Your task to perform on an android device: delete location history Image 0: 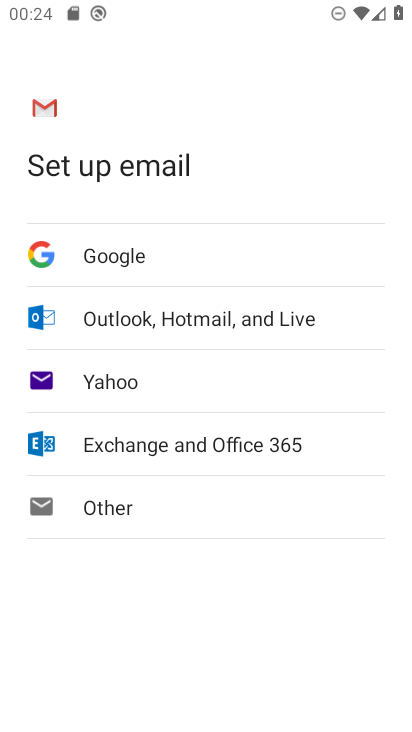
Step 0: press home button
Your task to perform on an android device: delete location history Image 1: 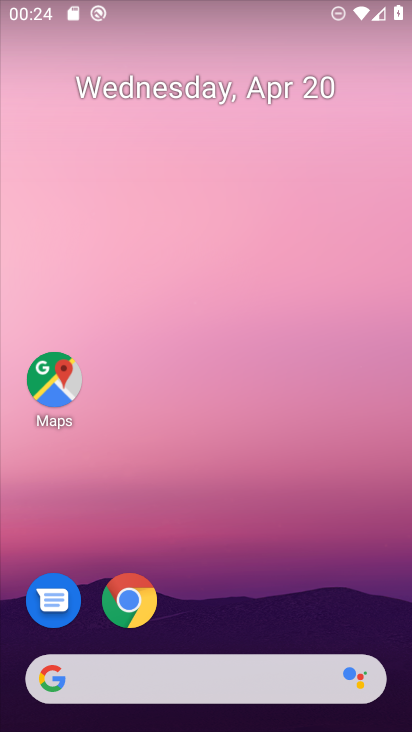
Step 1: drag from (349, 579) to (331, 201)
Your task to perform on an android device: delete location history Image 2: 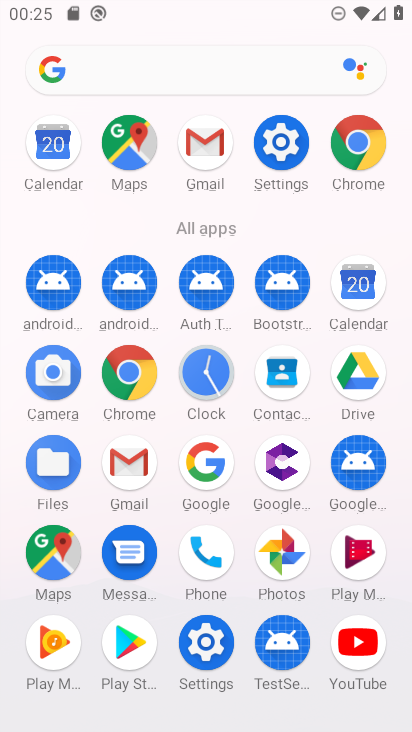
Step 2: click (278, 157)
Your task to perform on an android device: delete location history Image 3: 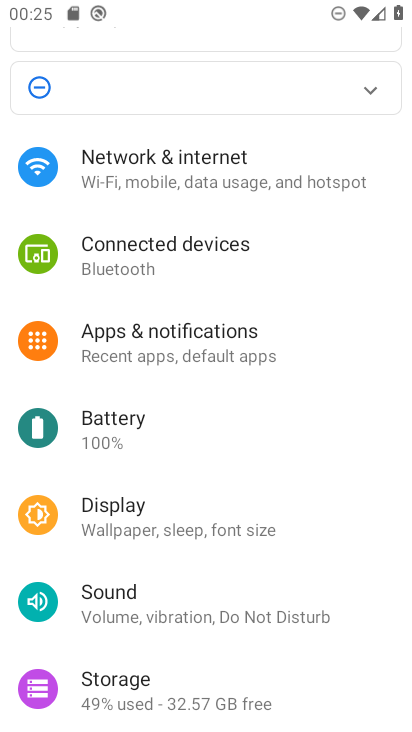
Step 3: drag from (302, 637) to (308, 286)
Your task to perform on an android device: delete location history Image 4: 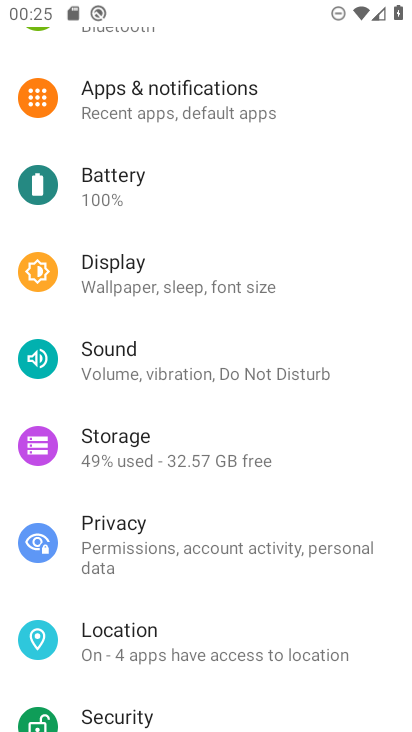
Step 4: click (242, 651)
Your task to perform on an android device: delete location history Image 5: 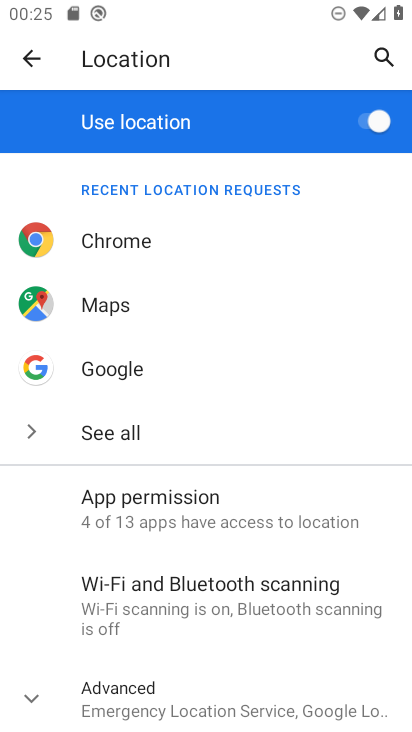
Step 5: drag from (376, 645) to (367, 335)
Your task to perform on an android device: delete location history Image 6: 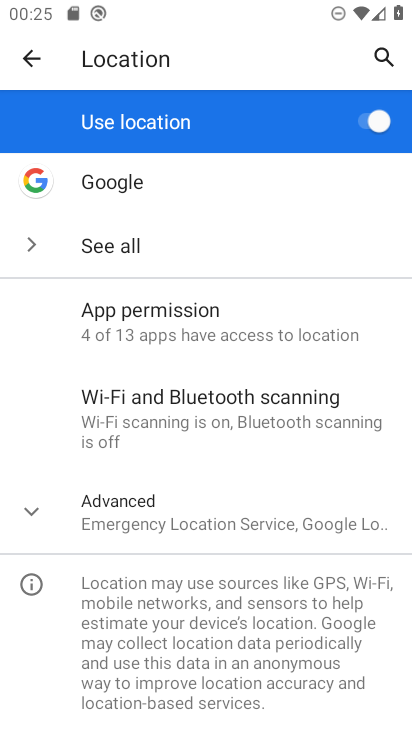
Step 6: click (226, 511)
Your task to perform on an android device: delete location history Image 7: 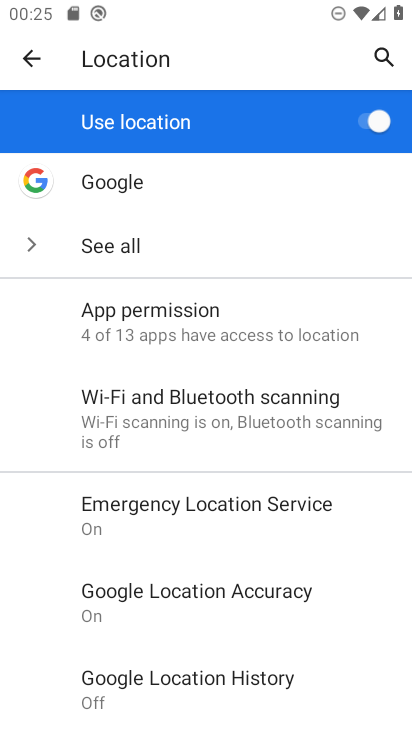
Step 7: click (272, 681)
Your task to perform on an android device: delete location history Image 8: 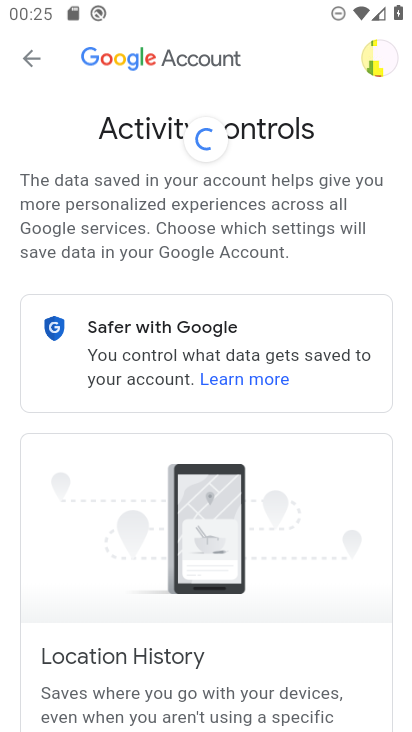
Step 8: drag from (324, 654) to (319, 371)
Your task to perform on an android device: delete location history Image 9: 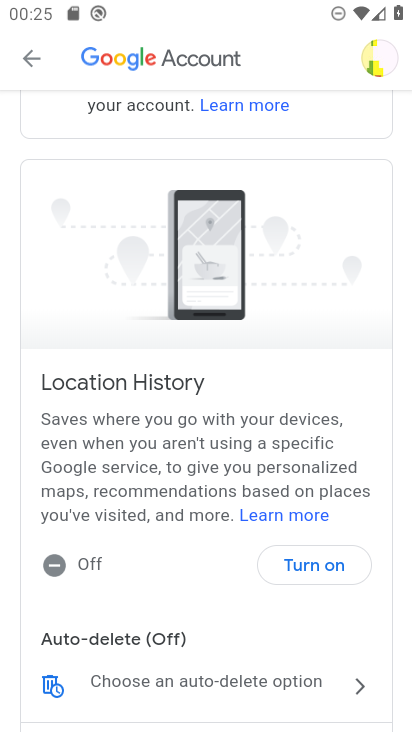
Step 9: drag from (236, 601) to (248, 402)
Your task to perform on an android device: delete location history Image 10: 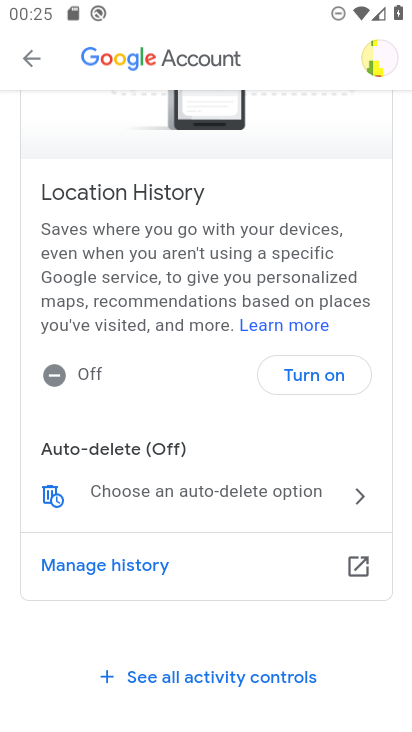
Step 10: click (138, 570)
Your task to perform on an android device: delete location history Image 11: 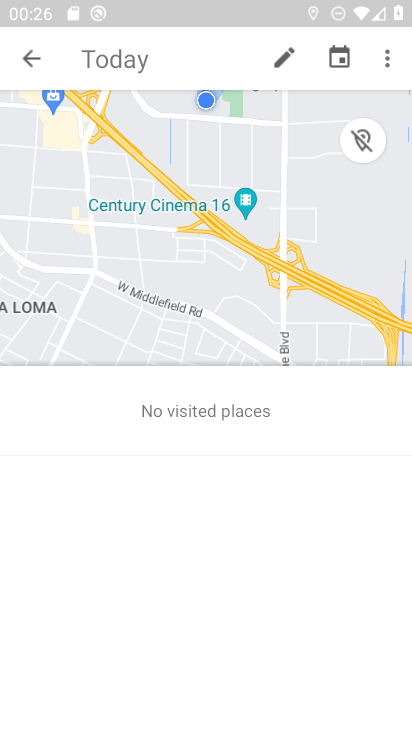
Step 11: click (384, 64)
Your task to perform on an android device: delete location history Image 12: 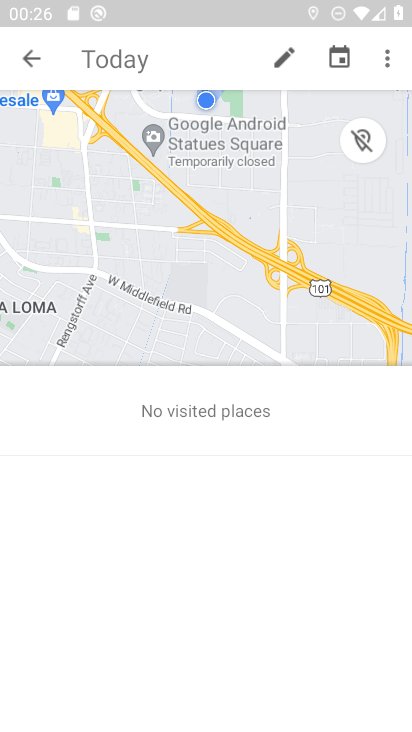
Step 12: click (386, 69)
Your task to perform on an android device: delete location history Image 13: 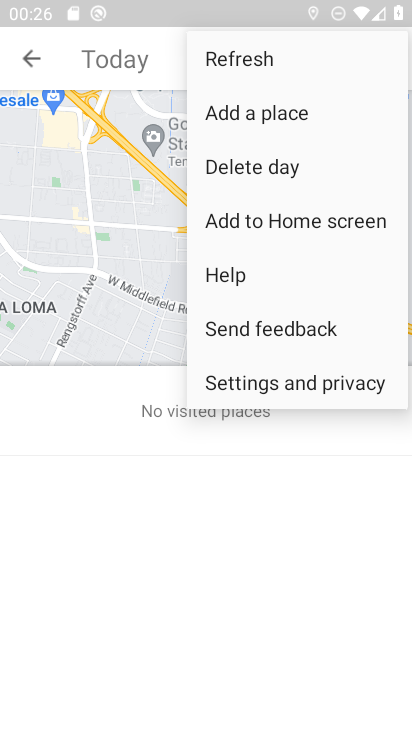
Step 13: click (254, 393)
Your task to perform on an android device: delete location history Image 14: 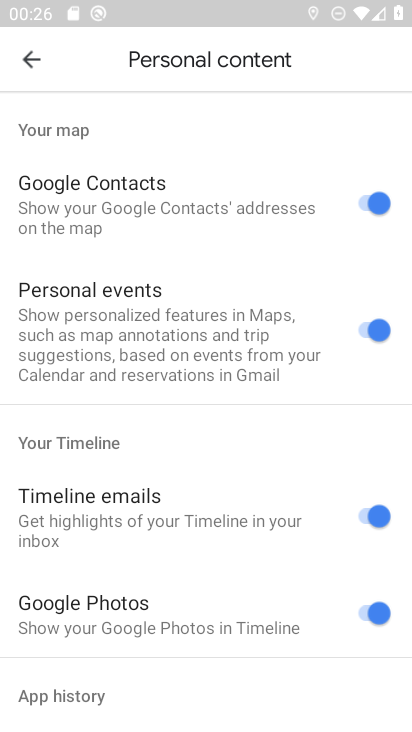
Step 14: drag from (224, 593) to (246, 324)
Your task to perform on an android device: delete location history Image 15: 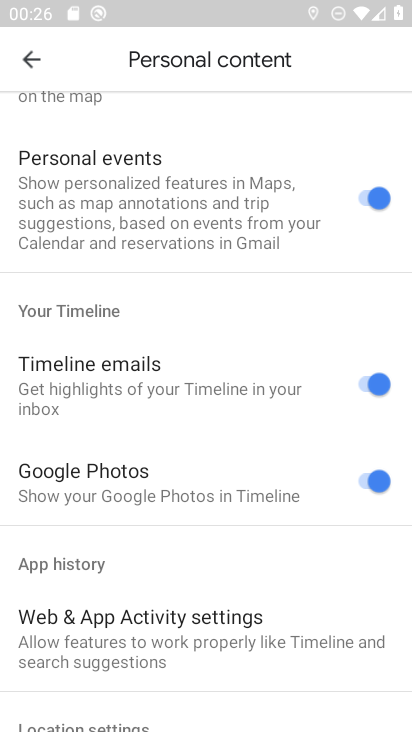
Step 15: drag from (218, 623) to (219, 418)
Your task to perform on an android device: delete location history Image 16: 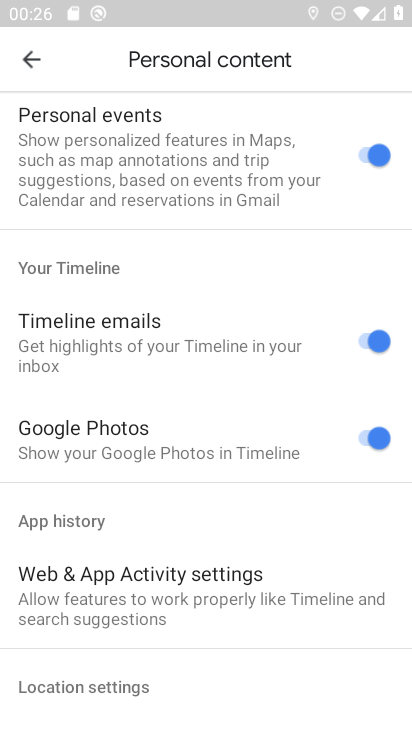
Step 16: drag from (216, 673) to (241, 441)
Your task to perform on an android device: delete location history Image 17: 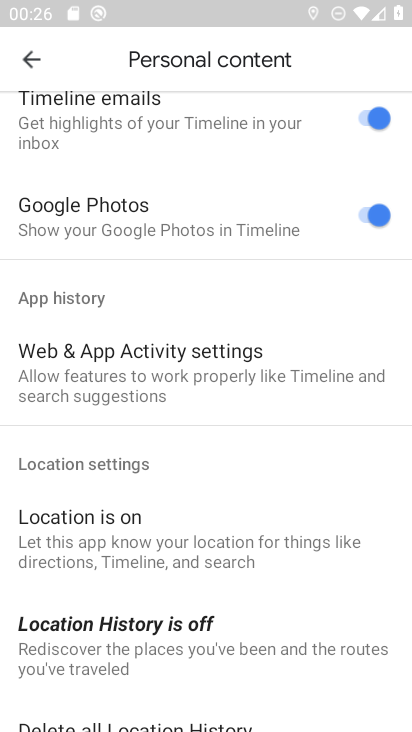
Step 17: drag from (251, 691) to (259, 511)
Your task to perform on an android device: delete location history Image 18: 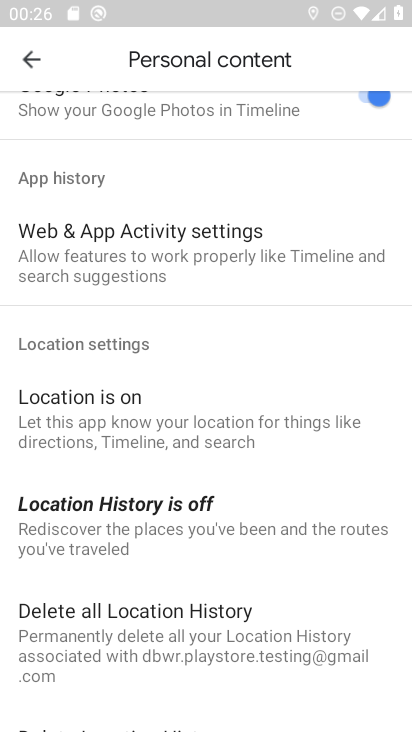
Step 18: click (168, 628)
Your task to perform on an android device: delete location history Image 19: 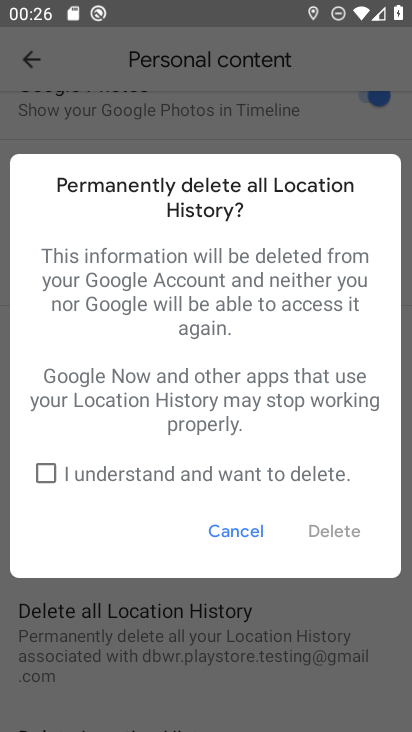
Step 19: click (58, 467)
Your task to perform on an android device: delete location history Image 20: 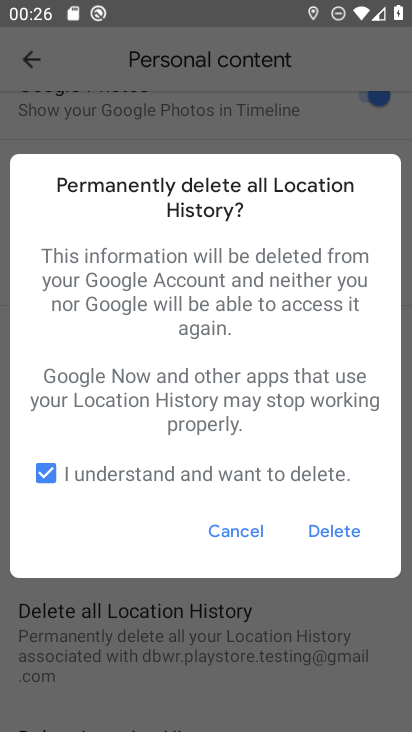
Step 20: click (333, 533)
Your task to perform on an android device: delete location history Image 21: 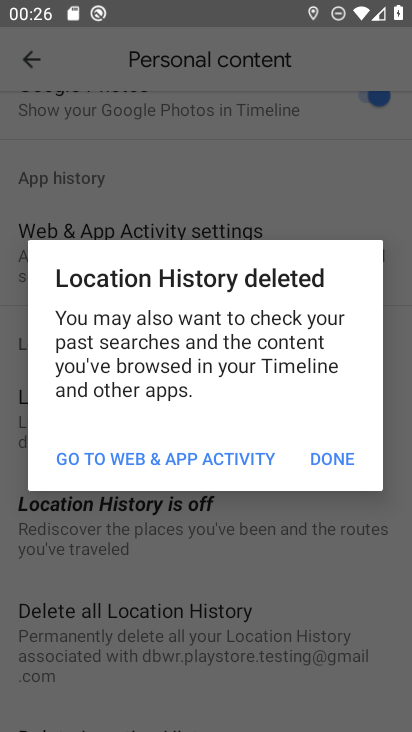
Step 21: click (332, 461)
Your task to perform on an android device: delete location history Image 22: 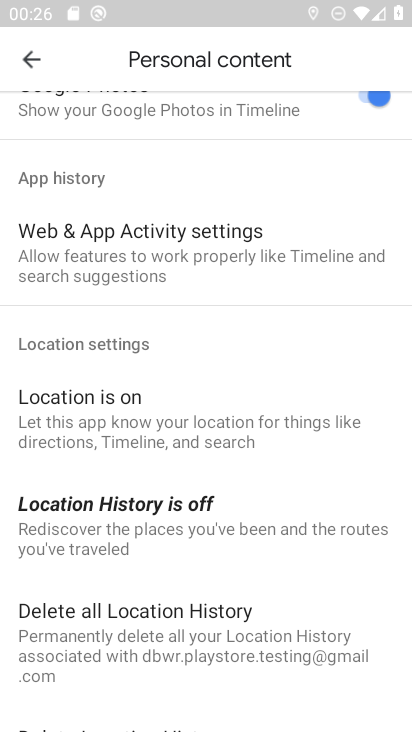
Step 22: task complete